Your task to perform on an android device: turn off location history Image 0: 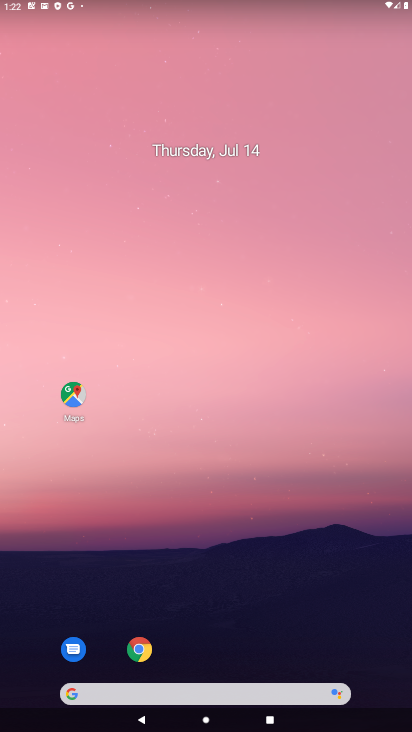
Step 0: drag from (391, 672) to (269, 20)
Your task to perform on an android device: turn off location history Image 1: 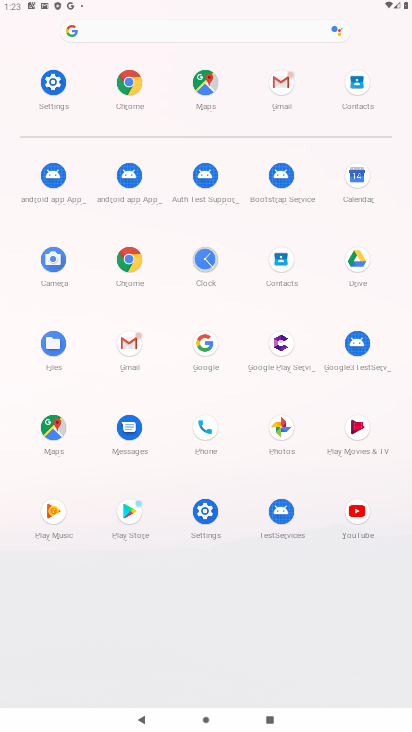
Step 1: click (205, 499)
Your task to perform on an android device: turn off location history Image 2: 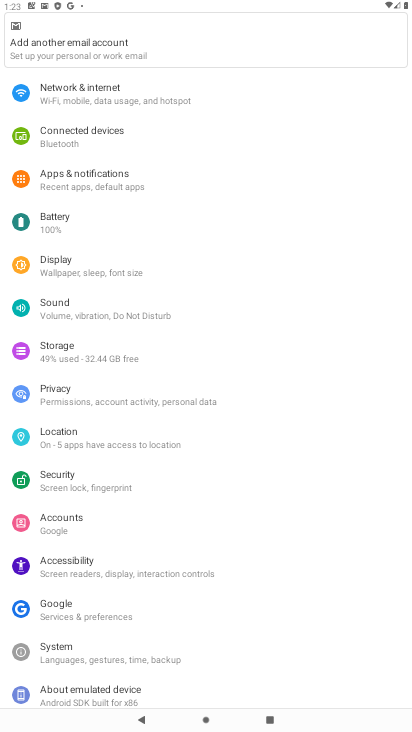
Step 2: click (81, 432)
Your task to perform on an android device: turn off location history Image 3: 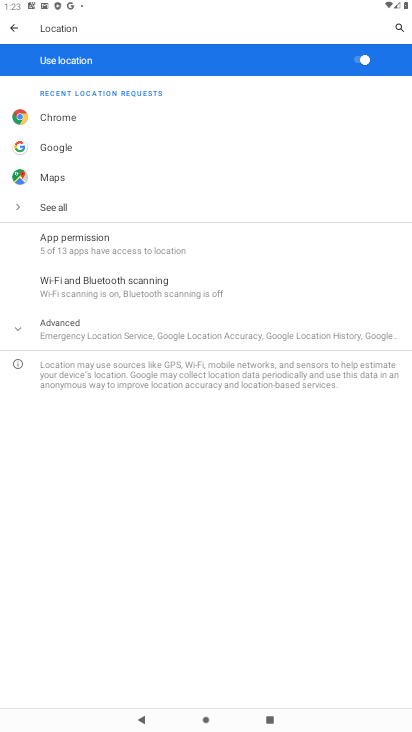
Step 3: click (106, 332)
Your task to perform on an android device: turn off location history Image 4: 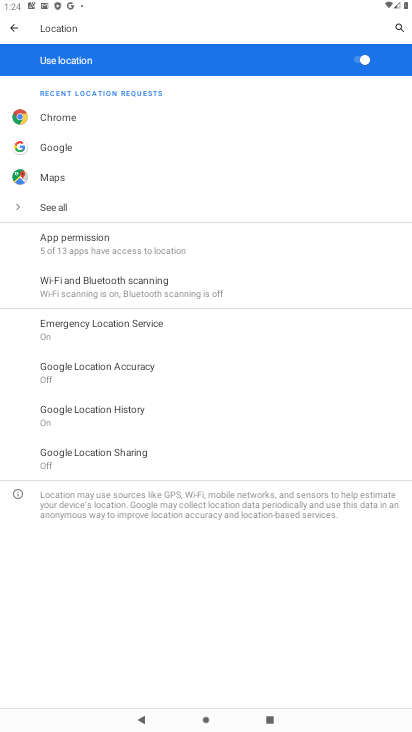
Step 4: click (106, 412)
Your task to perform on an android device: turn off location history Image 5: 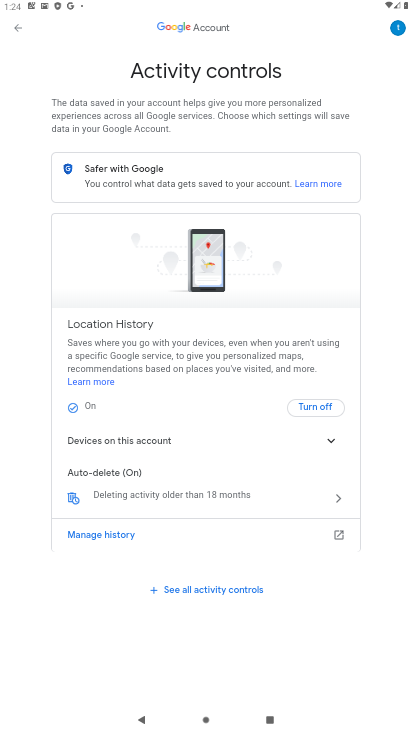
Step 5: click (320, 405)
Your task to perform on an android device: turn off location history Image 6: 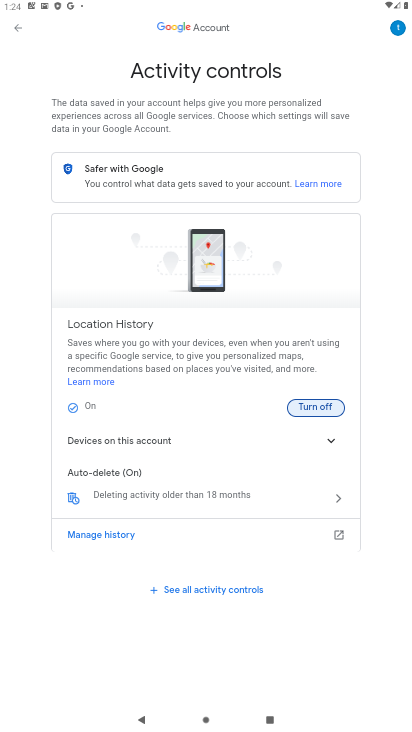
Step 6: task complete